Your task to perform on an android device: Go to Maps Image 0: 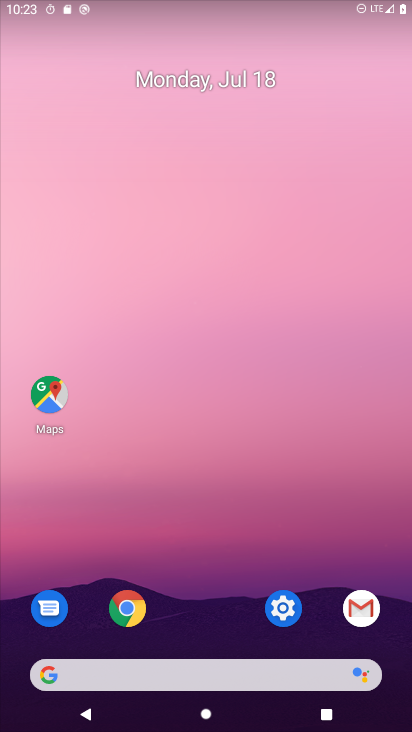
Step 0: press home button
Your task to perform on an android device: Go to Maps Image 1: 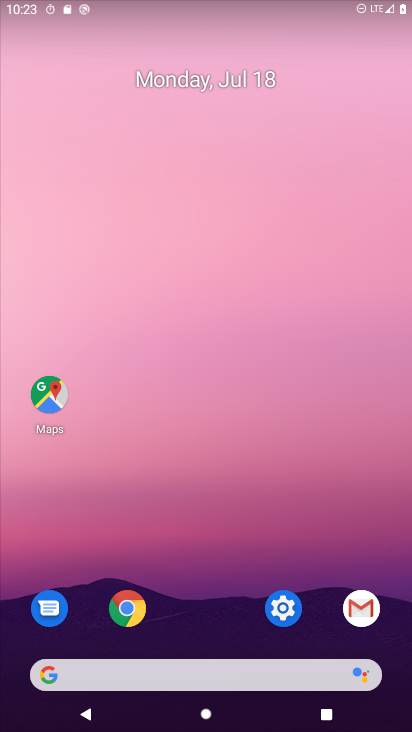
Step 1: click (55, 374)
Your task to perform on an android device: Go to Maps Image 2: 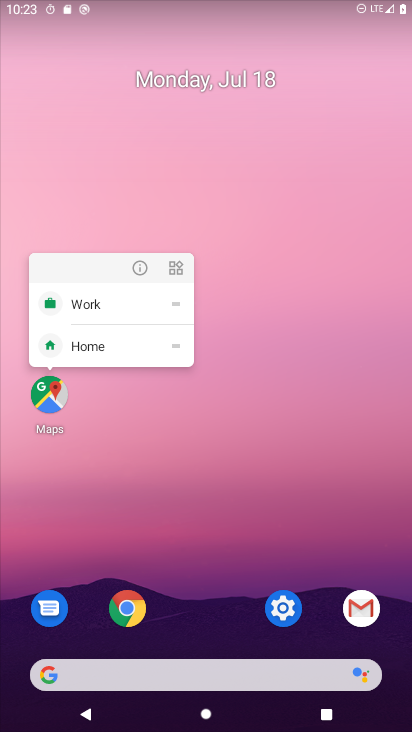
Step 2: click (45, 395)
Your task to perform on an android device: Go to Maps Image 3: 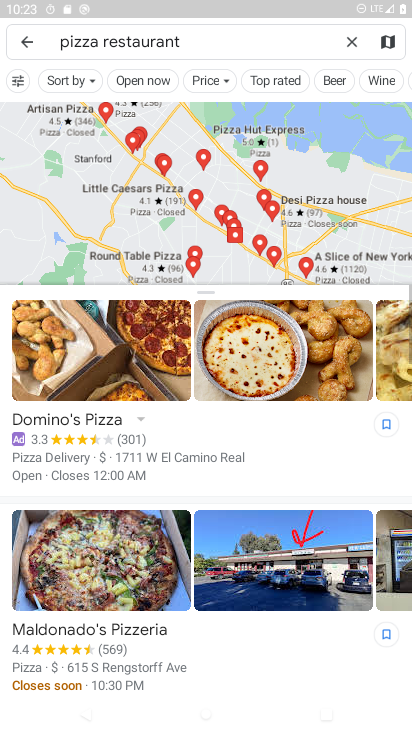
Step 3: click (20, 45)
Your task to perform on an android device: Go to Maps Image 4: 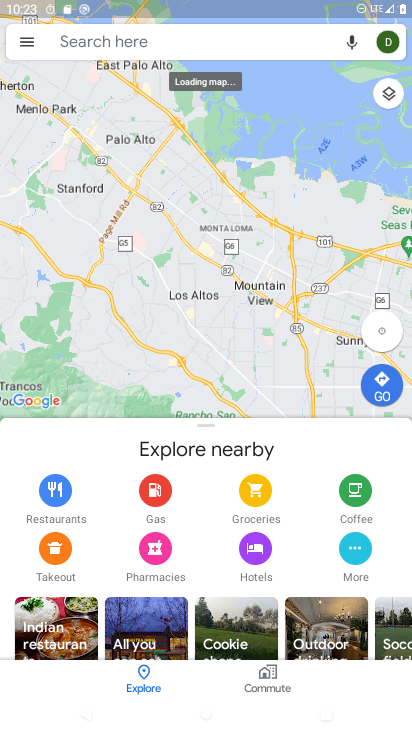
Step 4: click (380, 333)
Your task to perform on an android device: Go to Maps Image 5: 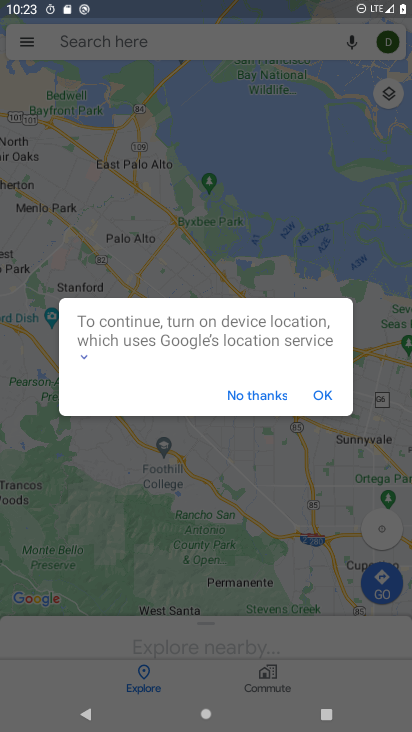
Step 5: click (255, 398)
Your task to perform on an android device: Go to Maps Image 6: 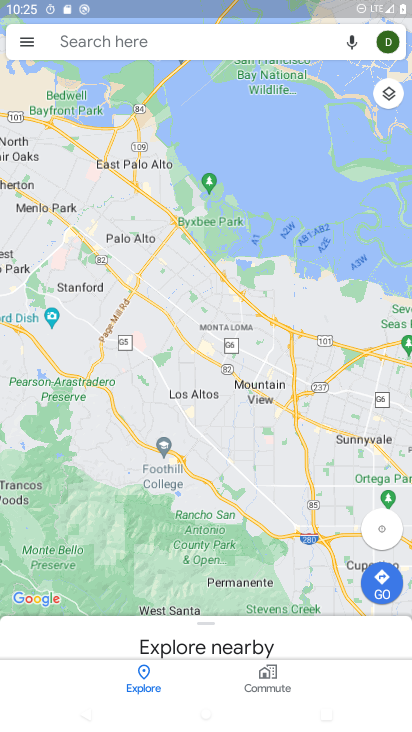
Step 6: task complete